Your task to perform on an android device: Go to Yahoo.com Image 0: 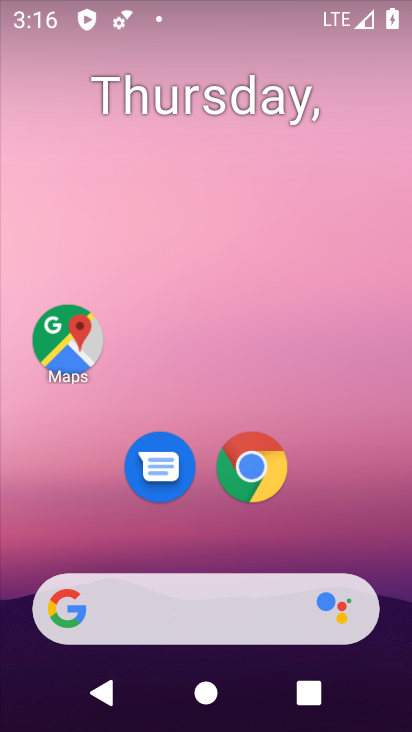
Step 0: drag from (180, 619) to (272, 139)
Your task to perform on an android device: Go to Yahoo.com Image 1: 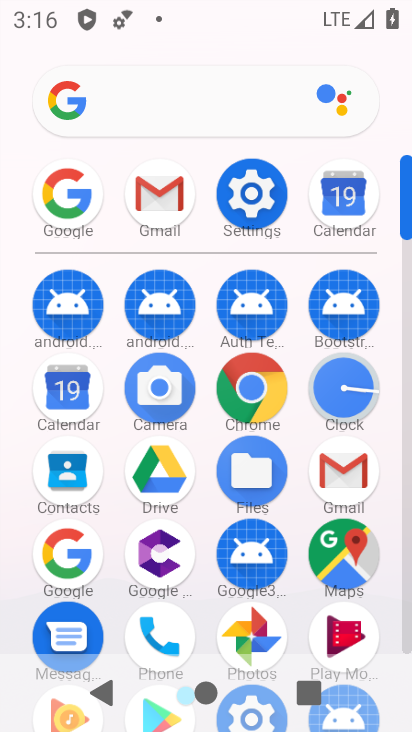
Step 1: click (256, 417)
Your task to perform on an android device: Go to Yahoo.com Image 2: 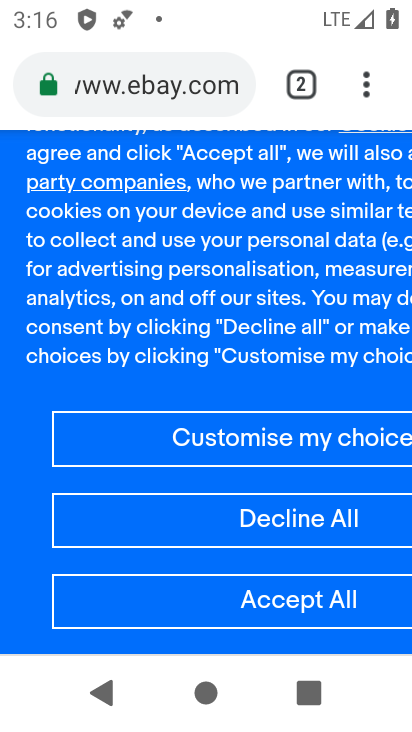
Step 2: click (187, 77)
Your task to perform on an android device: Go to Yahoo.com Image 3: 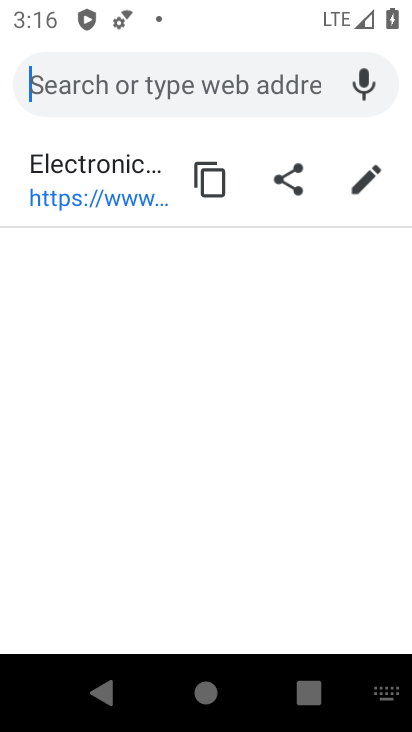
Step 3: type "yahoo.com"
Your task to perform on an android device: Go to Yahoo.com Image 4: 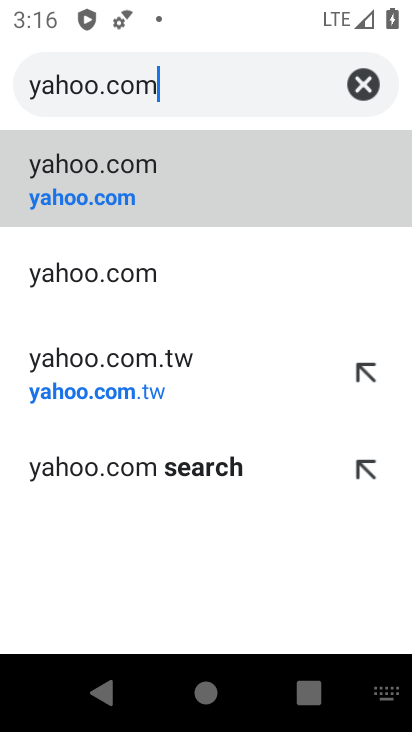
Step 4: click (115, 187)
Your task to perform on an android device: Go to Yahoo.com Image 5: 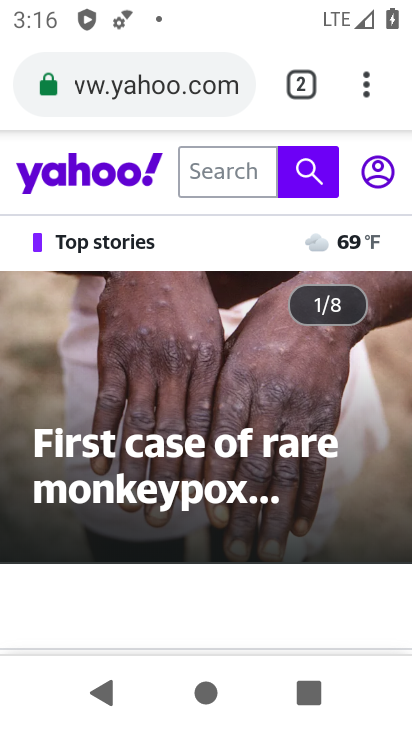
Step 5: task complete